Your task to perform on an android device: When is my next meeting? Image 0: 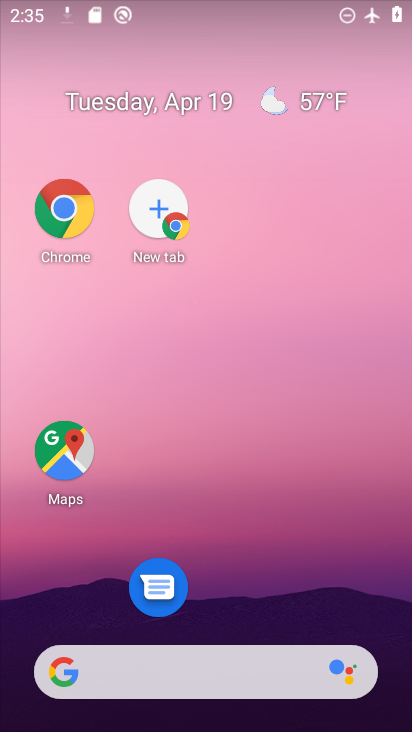
Step 0: click (199, 372)
Your task to perform on an android device: When is my next meeting? Image 1: 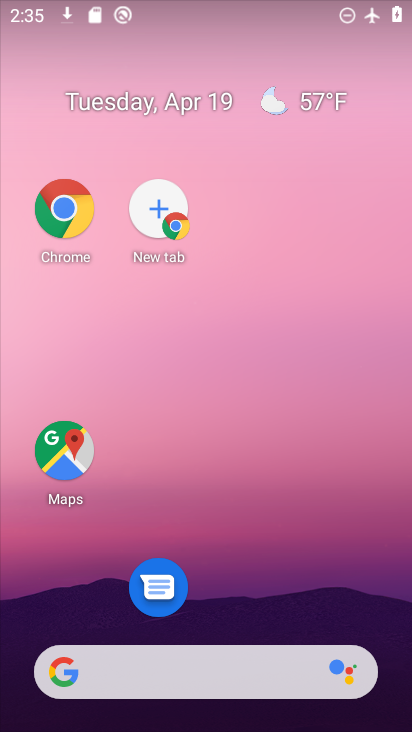
Step 1: drag from (294, 588) to (274, 303)
Your task to perform on an android device: When is my next meeting? Image 2: 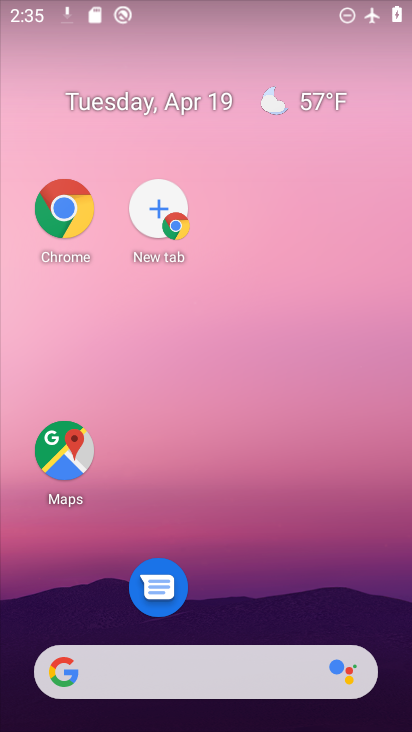
Step 2: drag from (275, 619) to (205, 342)
Your task to perform on an android device: When is my next meeting? Image 3: 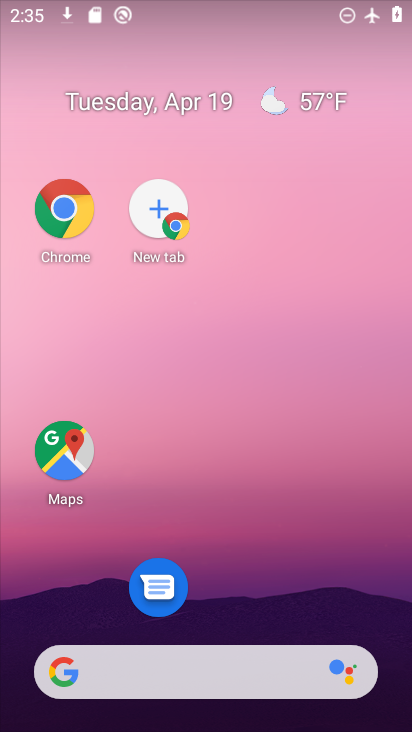
Step 3: drag from (281, 630) to (189, 353)
Your task to perform on an android device: When is my next meeting? Image 4: 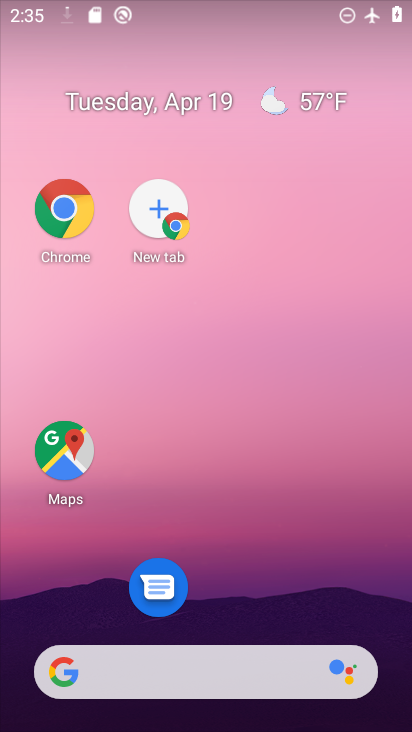
Step 4: drag from (268, 544) to (221, 325)
Your task to perform on an android device: When is my next meeting? Image 5: 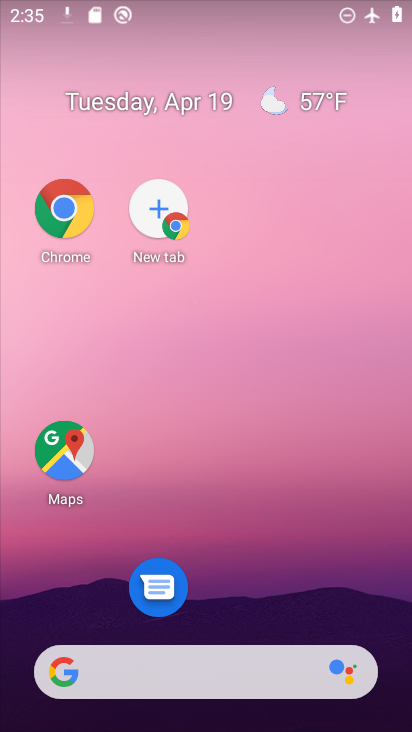
Step 5: drag from (305, 578) to (235, 213)
Your task to perform on an android device: When is my next meeting? Image 6: 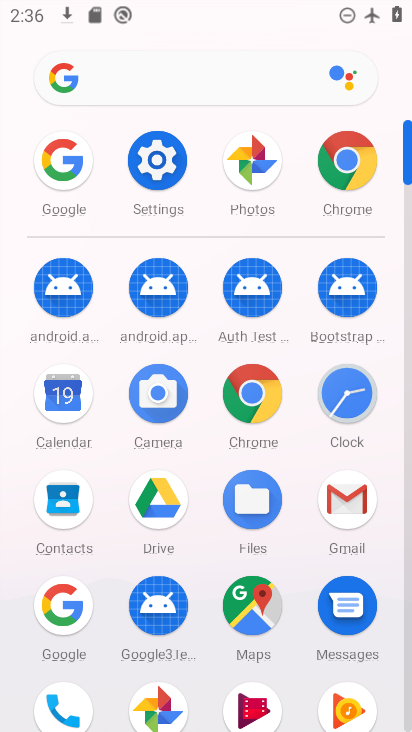
Step 6: click (57, 401)
Your task to perform on an android device: When is my next meeting? Image 7: 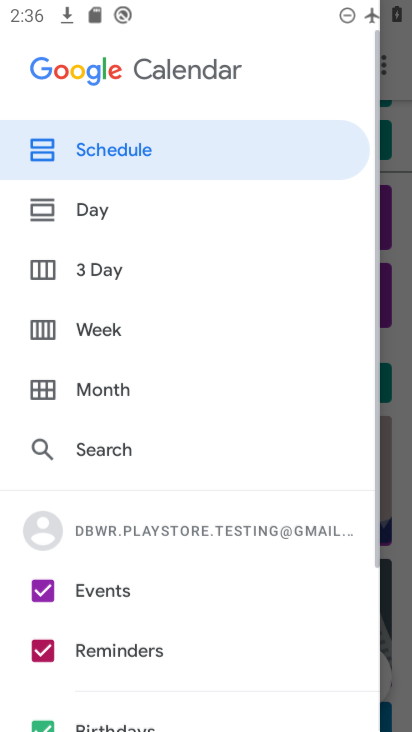
Step 7: click (57, 401)
Your task to perform on an android device: When is my next meeting? Image 8: 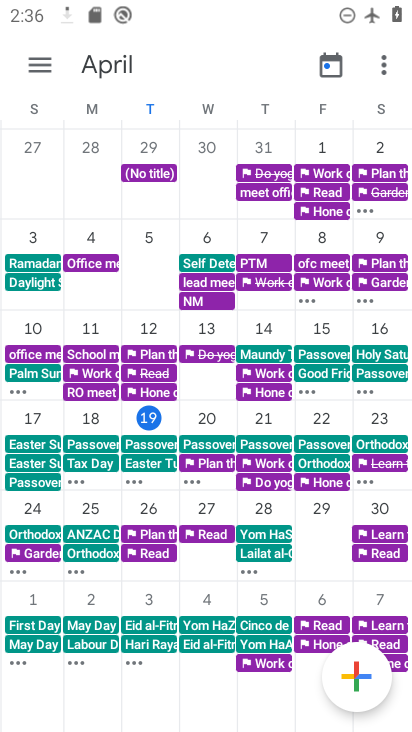
Step 8: click (151, 218)
Your task to perform on an android device: When is my next meeting? Image 9: 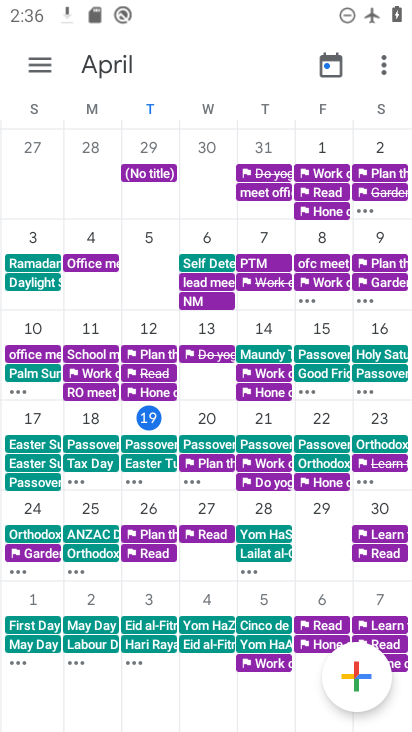
Step 9: drag from (207, 518) to (184, 225)
Your task to perform on an android device: When is my next meeting? Image 10: 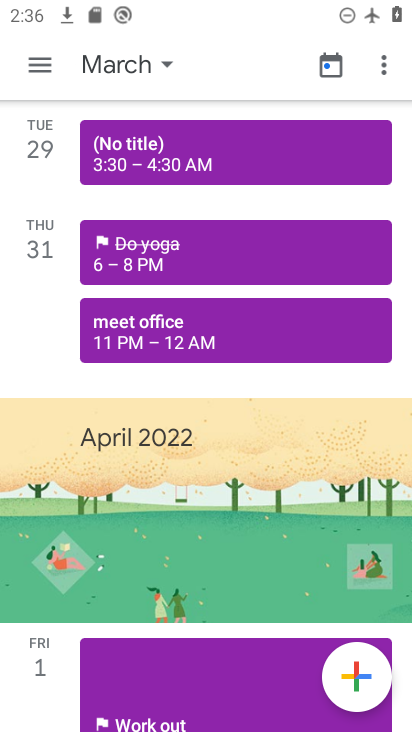
Step 10: drag from (250, 489) to (258, 229)
Your task to perform on an android device: When is my next meeting? Image 11: 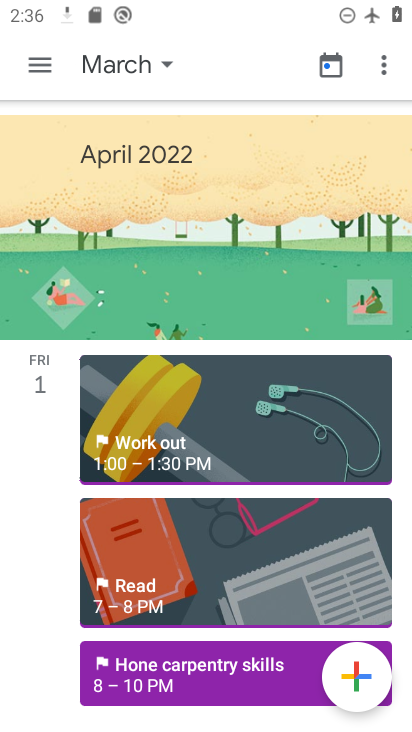
Step 11: drag from (305, 571) to (280, 283)
Your task to perform on an android device: When is my next meeting? Image 12: 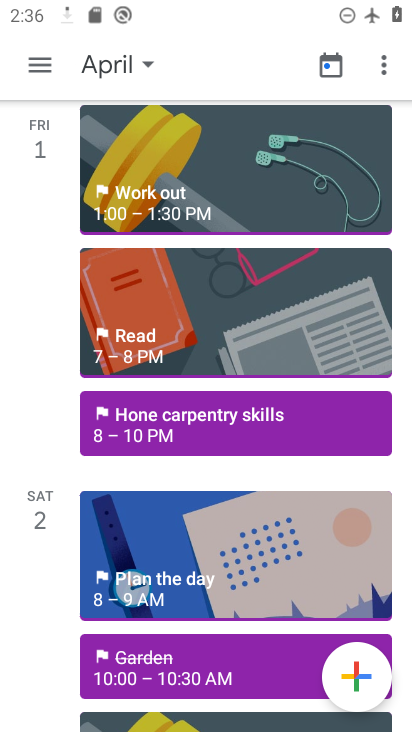
Step 12: drag from (240, 529) to (229, 221)
Your task to perform on an android device: When is my next meeting? Image 13: 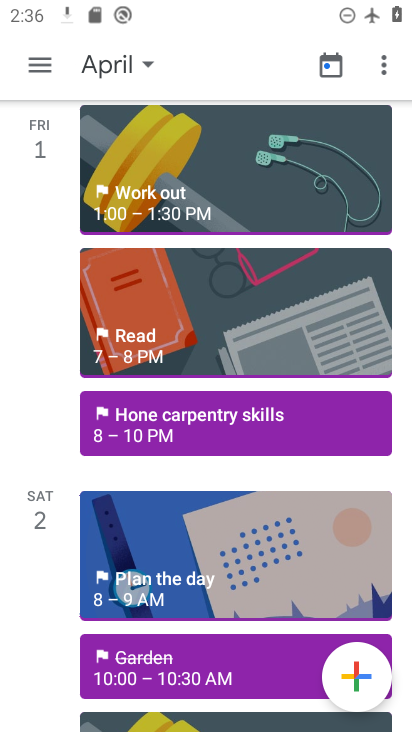
Step 13: drag from (179, 548) to (159, 242)
Your task to perform on an android device: When is my next meeting? Image 14: 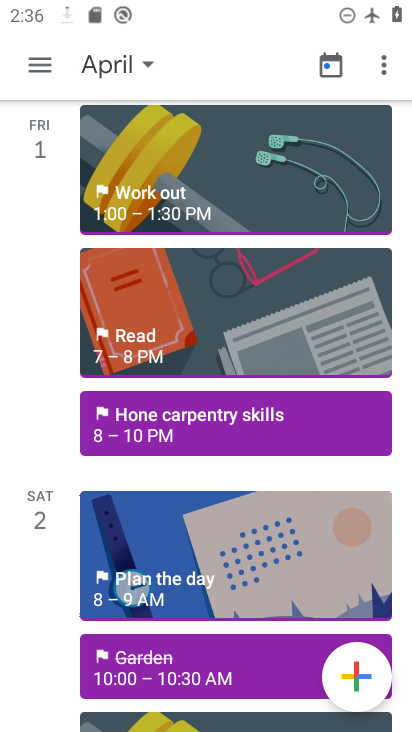
Step 14: drag from (181, 541) to (132, 263)
Your task to perform on an android device: When is my next meeting? Image 15: 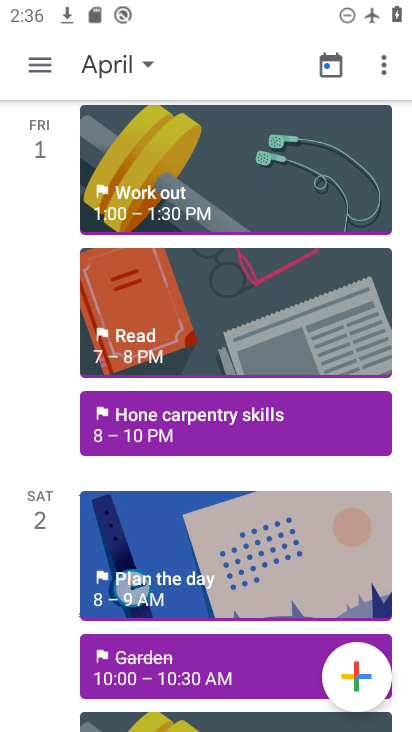
Step 15: drag from (150, 592) to (144, 228)
Your task to perform on an android device: When is my next meeting? Image 16: 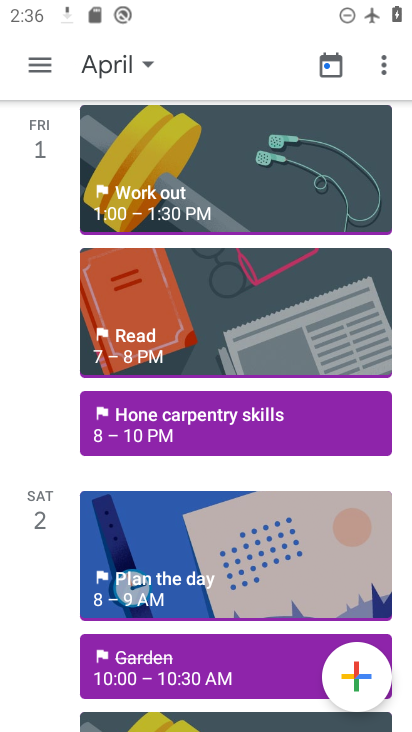
Step 16: drag from (230, 598) to (277, 264)
Your task to perform on an android device: When is my next meeting? Image 17: 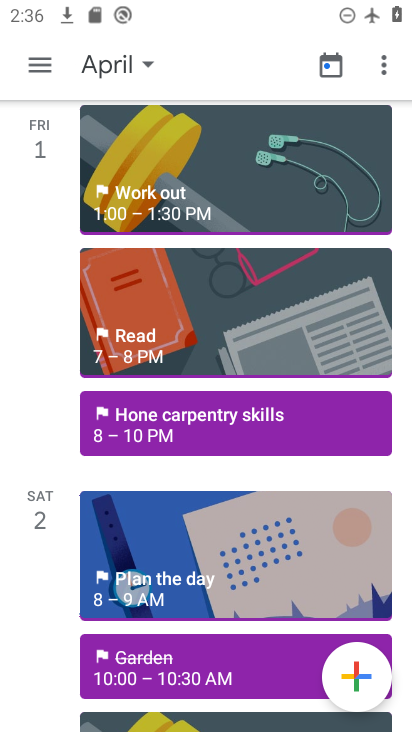
Step 17: drag from (276, 646) to (227, 182)
Your task to perform on an android device: When is my next meeting? Image 18: 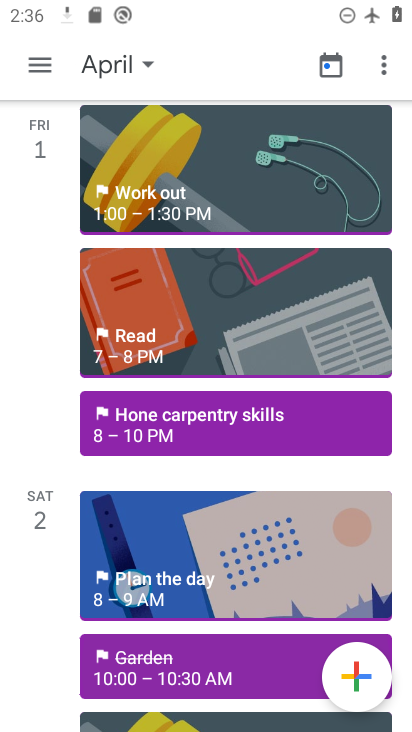
Step 18: click (199, 271)
Your task to perform on an android device: When is my next meeting? Image 19: 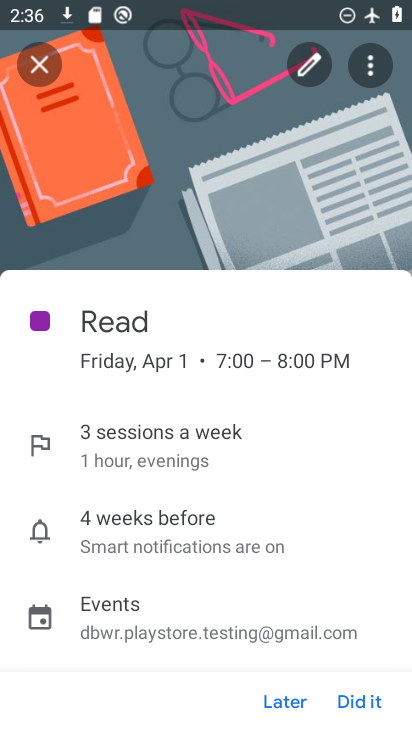
Step 19: drag from (151, 459) to (128, 197)
Your task to perform on an android device: When is my next meeting? Image 20: 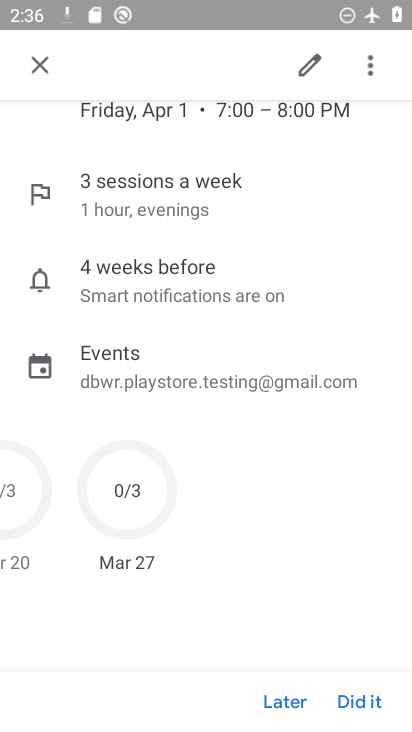
Step 20: click (41, 61)
Your task to perform on an android device: When is my next meeting? Image 21: 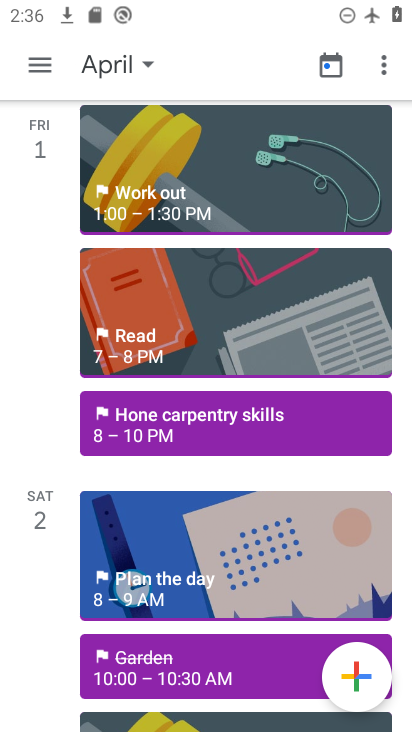
Step 21: click (40, 70)
Your task to perform on an android device: When is my next meeting? Image 22: 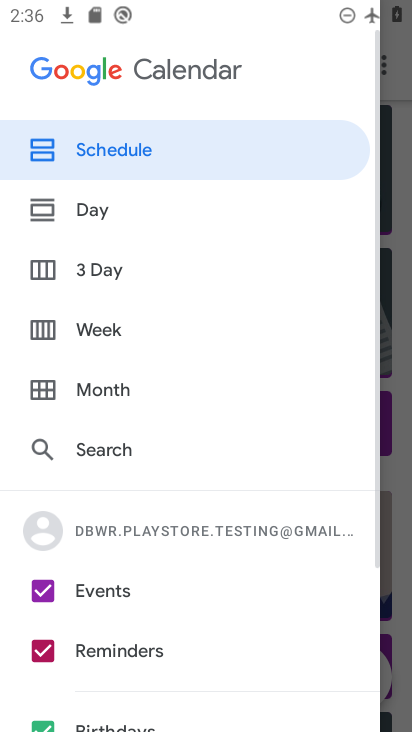
Step 22: drag from (194, 592) to (180, 245)
Your task to perform on an android device: When is my next meeting? Image 23: 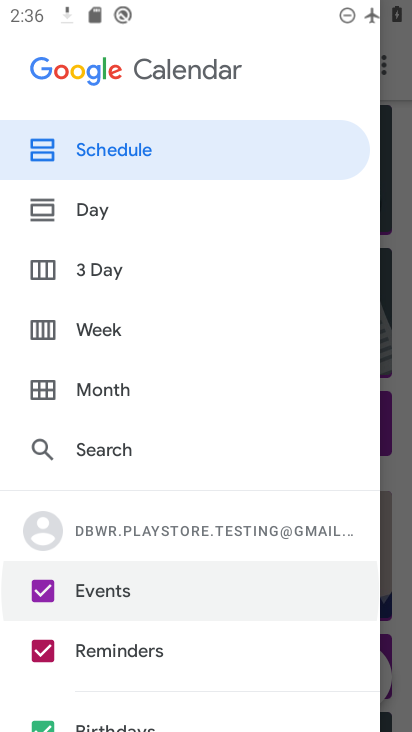
Step 23: drag from (225, 494) to (250, 237)
Your task to perform on an android device: When is my next meeting? Image 24: 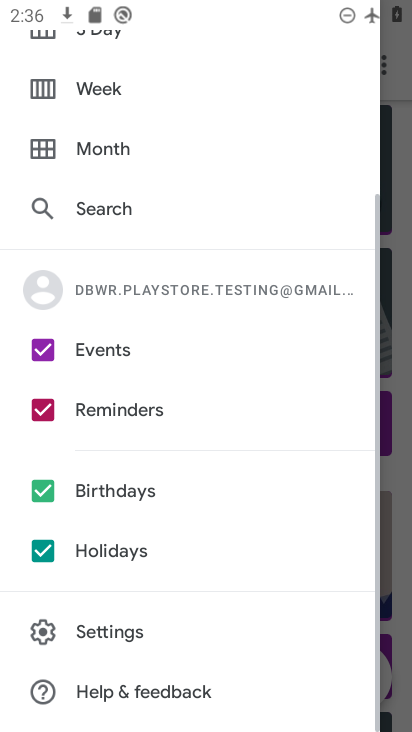
Step 24: press back button
Your task to perform on an android device: When is my next meeting? Image 25: 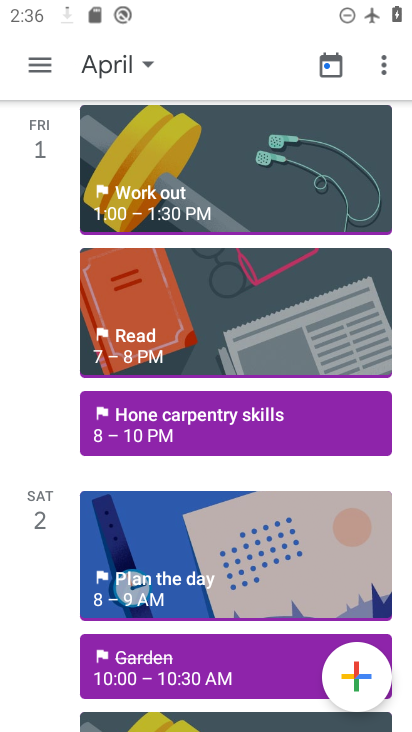
Step 25: drag from (232, 592) to (210, 434)
Your task to perform on an android device: When is my next meeting? Image 26: 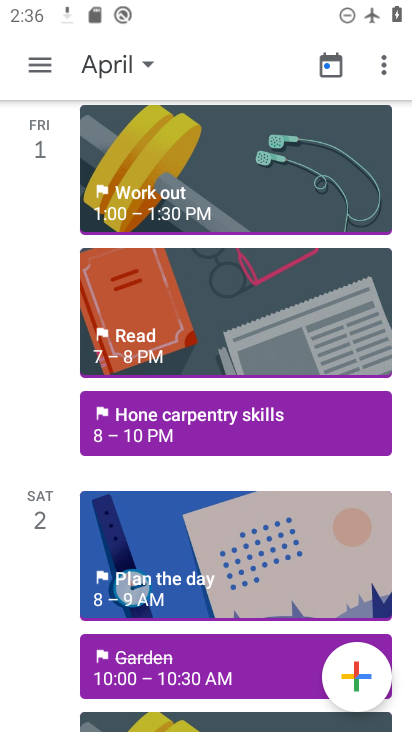
Step 26: drag from (198, 195) to (198, 508)
Your task to perform on an android device: When is my next meeting? Image 27: 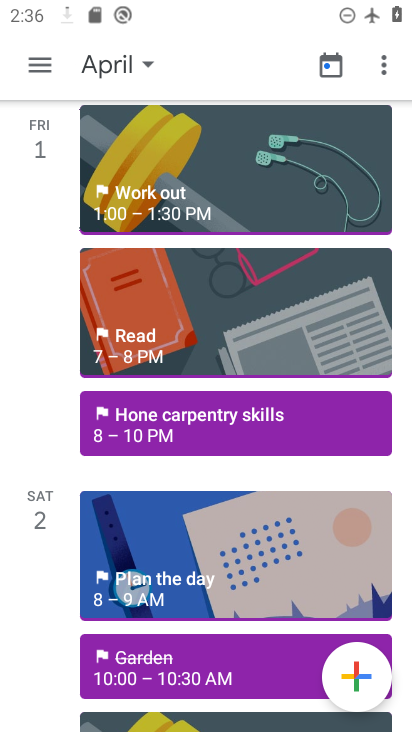
Step 27: drag from (161, 264) to (160, 491)
Your task to perform on an android device: When is my next meeting? Image 28: 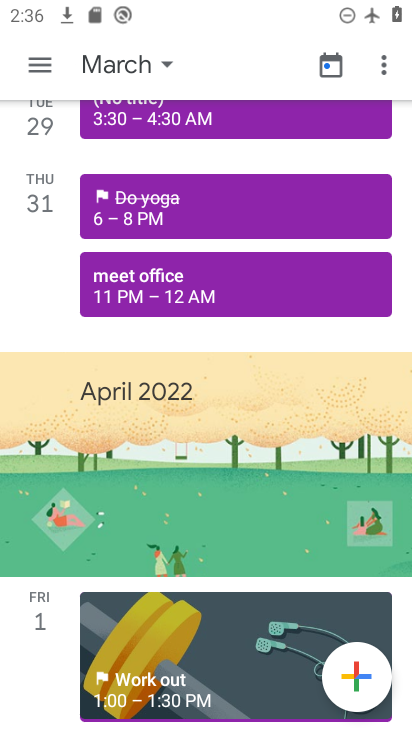
Step 28: click (171, 287)
Your task to perform on an android device: When is my next meeting? Image 29: 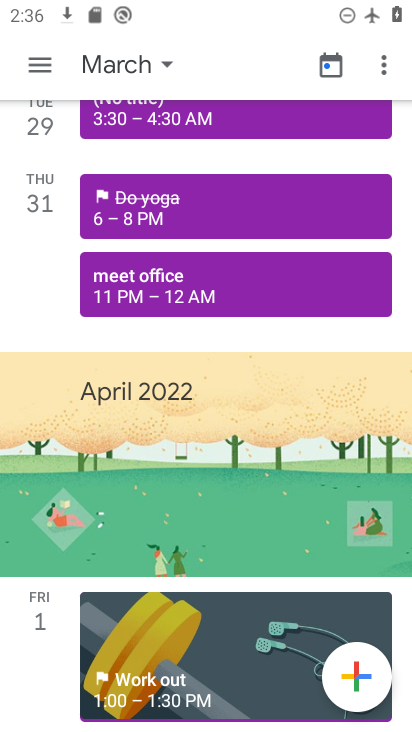
Step 29: click (187, 296)
Your task to perform on an android device: When is my next meeting? Image 30: 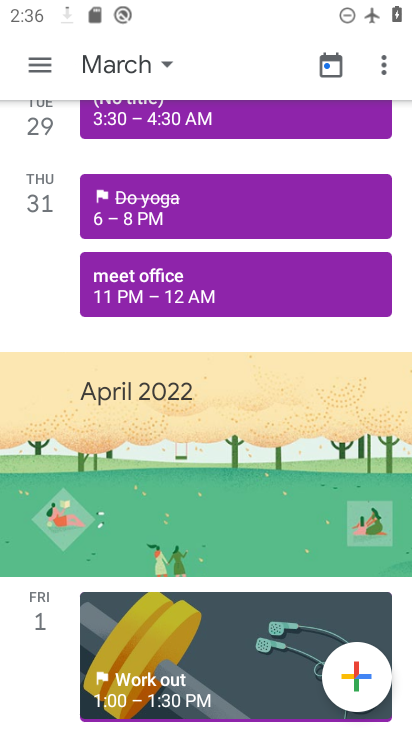
Step 30: click (187, 296)
Your task to perform on an android device: When is my next meeting? Image 31: 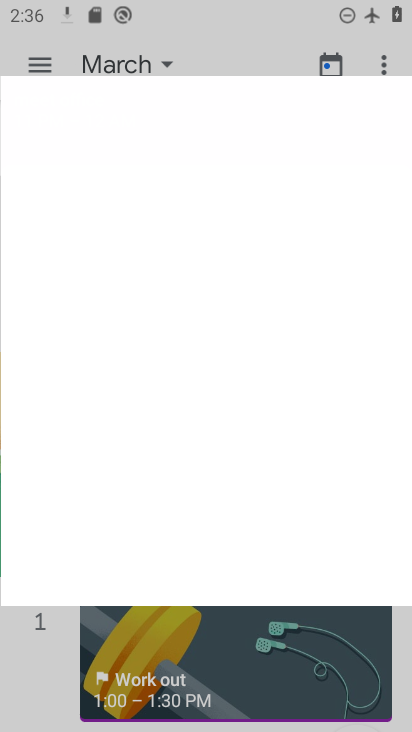
Step 31: click (187, 296)
Your task to perform on an android device: When is my next meeting? Image 32: 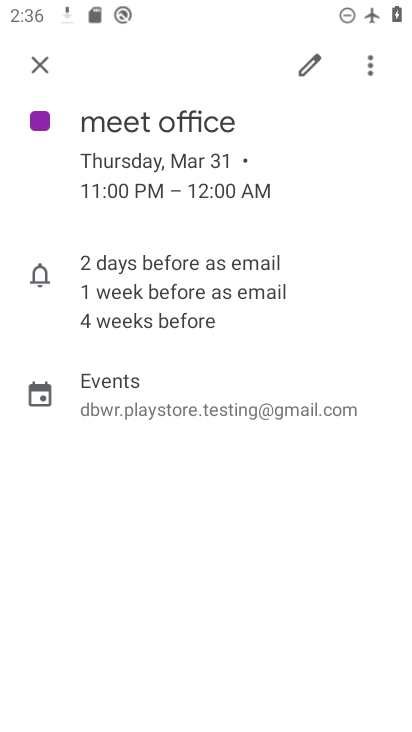
Step 32: click (38, 66)
Your task to perform on an android device: When is my next meeting? Image 33: 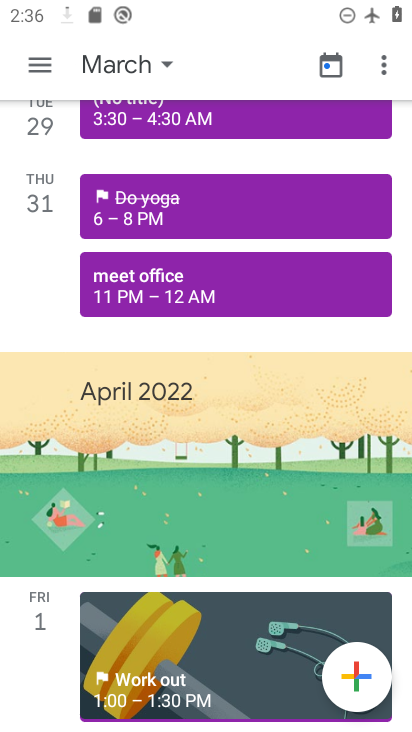
Step 33: drag from (190, 555) to (204, 60)
Your task to perform on an android device: When is my next meeting? Image 34: 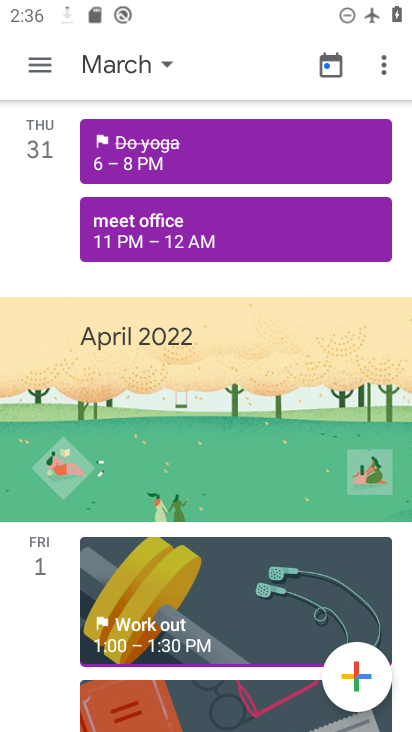
Step 34: drag from (186, 501) to (162, 127)
Your task to perform on an android device: When is my next meeting? Image 35: 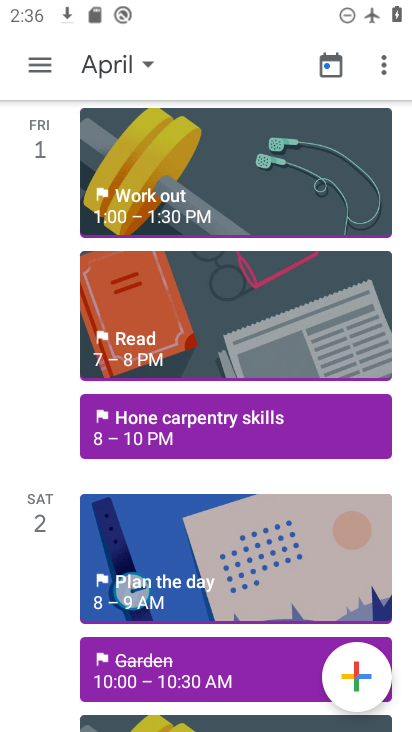
Step 35: drag from (193, 484) to (177, 96)
Your task to perform on an android device: When is my next meeting? Image 36: 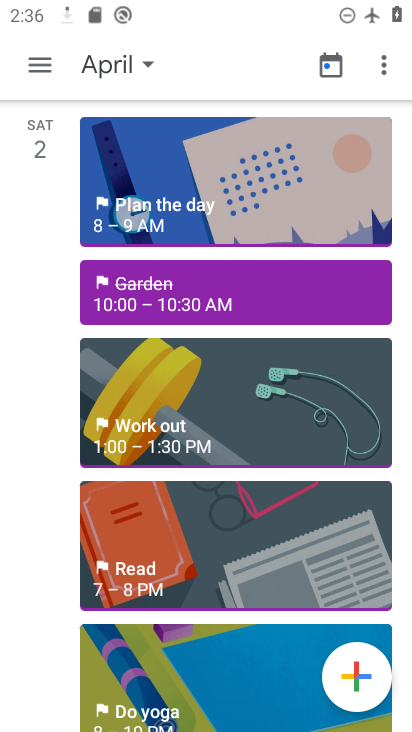
Step 36: drag from (216, 528) to (200, 137)
Your task to perform on an android device: When is my next meeting? Image 37: 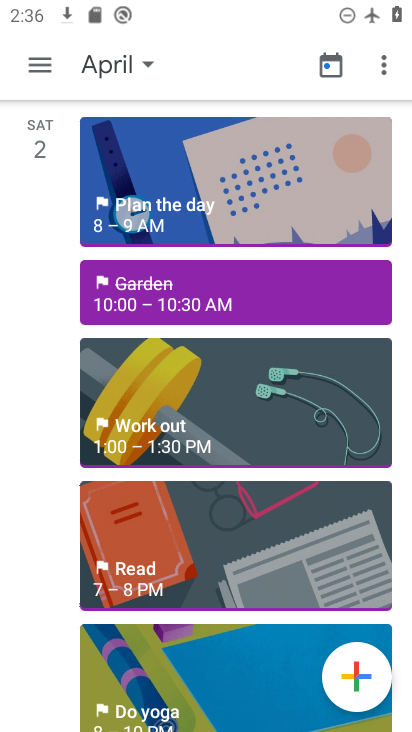
Step 37: click (201, 99)
Your task to perform on an android device: When is my next meeting? Image 38: 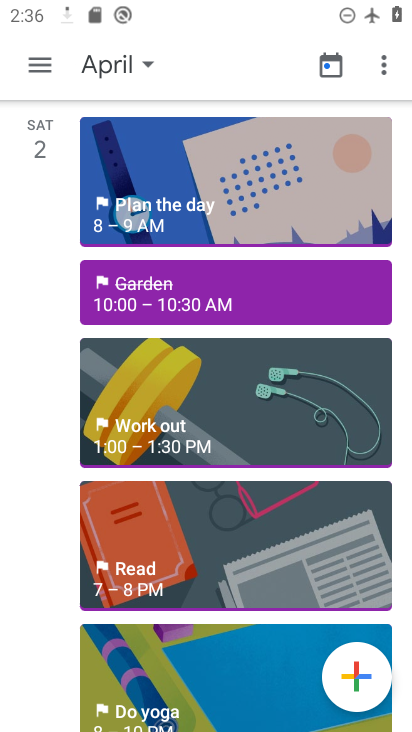
Step 38: drag from (185, 542) to (119, 72)
Your task to perform on an android device: When is my next meeting? Image 39: 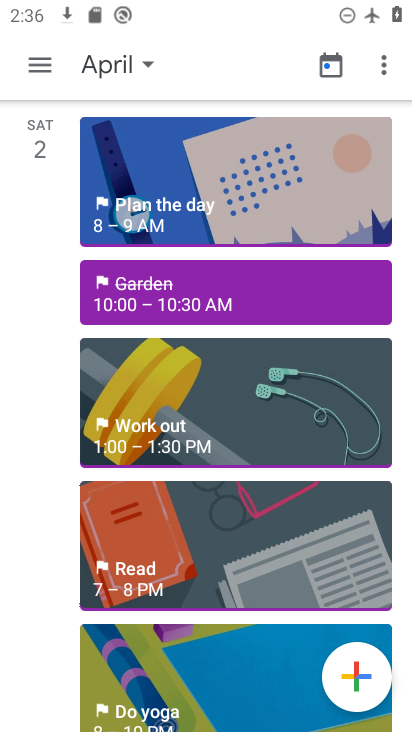
Step 39: drag from (181, 556) to (169, 305)
Your task to perform on an android device: When is my next meeting? Image 40: 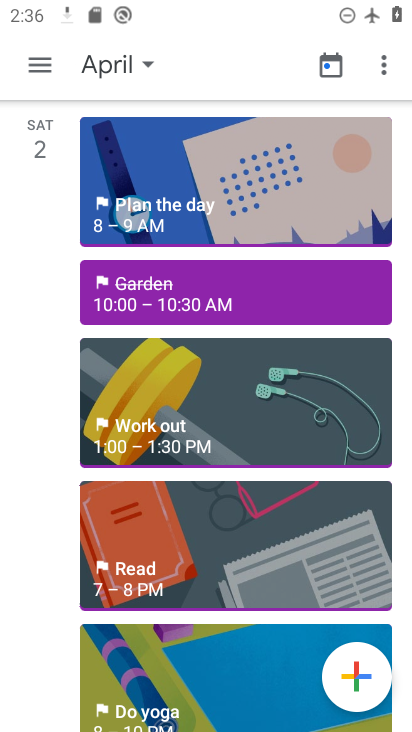
Step 40: drag from (163, 635) to (176, 316)
Your task to perform on an android device: When is my next meeting? Image 41: 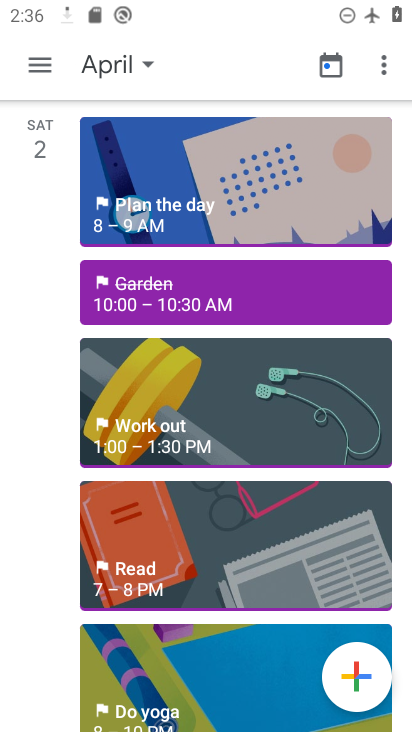
Step 41: drag from (248, 657) to (212, 155)
Your task to perform on an android device: When is my next meeting? Image 42: 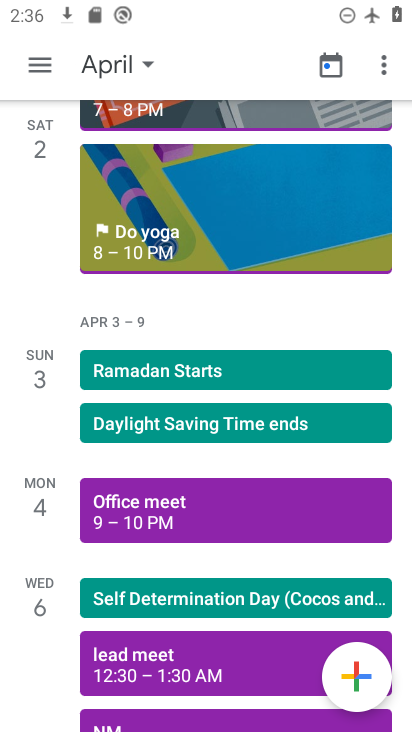
Step 42: drag from (178, 605) to (138, 224)
Your task to perform on an android device: When is my next meeting? Image 43: 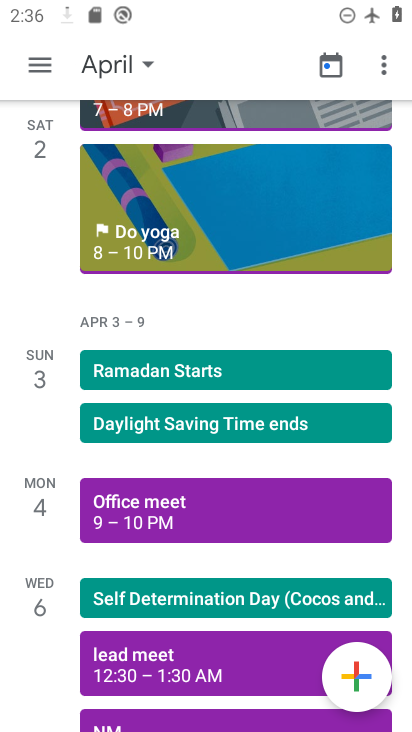
Step 43: drag from (196, 620) to (126, 178)
Your task to perform on an android device: When is my next meeting? Image 44: 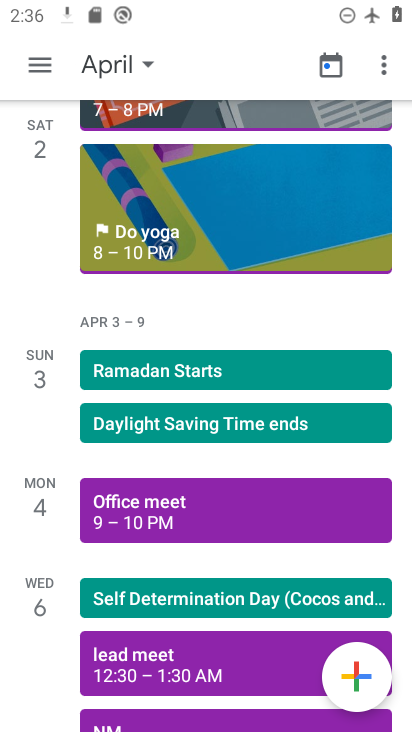
Step 44: drag from (145, 554) to (96, 214)
Your task to perform on an android device: When is my next meeting? Image 45: 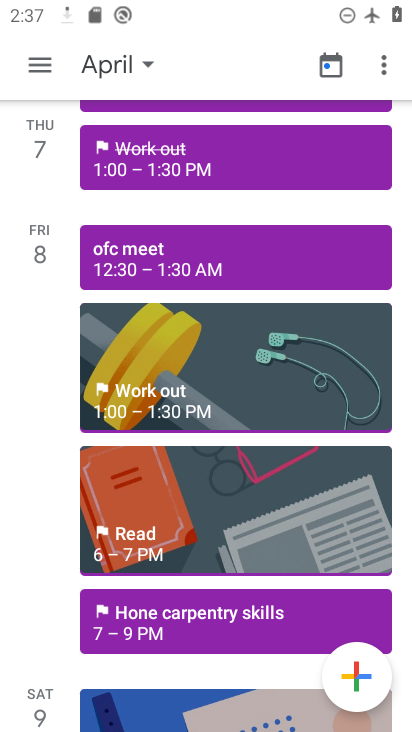
Step 45: drag from (186, 556) to (151, 259)
Your task to perform on an android device: When is my next meeting? Image 46: 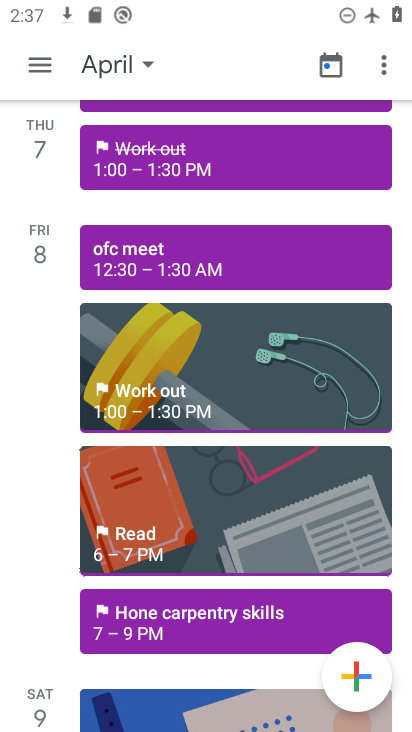
Step 46: drag from (213, 572) to (195, 143)
Your task to perform on an android device: When is my next meeting? Image 47: 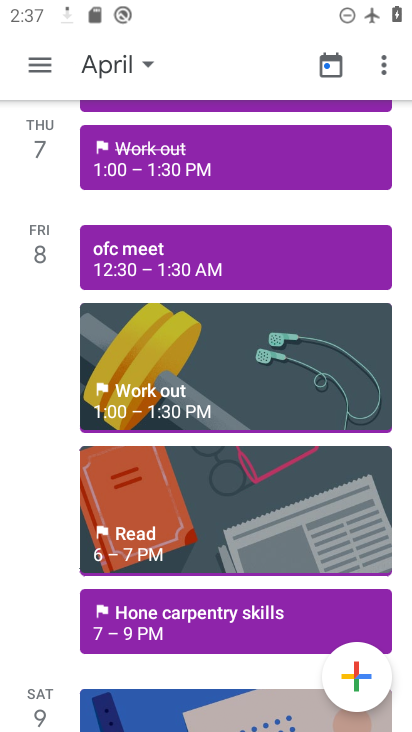
Step 47: drag from (211, 559) to (185, 205)
Your task to perform on an android device: When is my next meeting? Image 48: 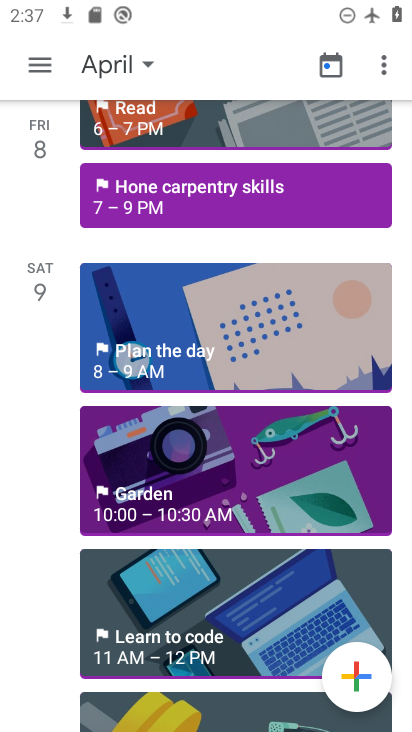
Step 48: drag from (250, 605) to (179, 135)
Your task to perform on an android device: When is my next meeting? Image 49: 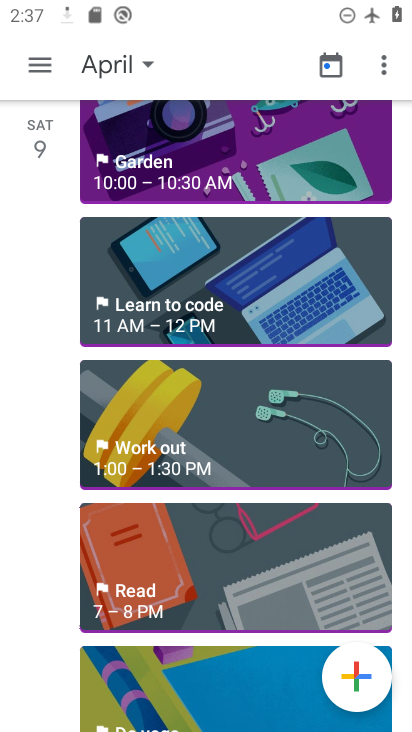
Step 49: drag from (140, 517) to (102, 182)
Your task to perform on an android device: When is my next meeting? Image 50: 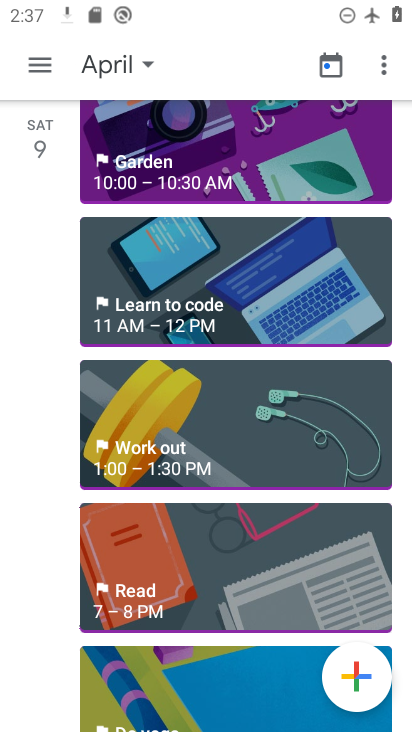
Step 50: drag from (163, 613) to (144, 161)
Your task to perform on an android device: When is my next meeting? Image 51: 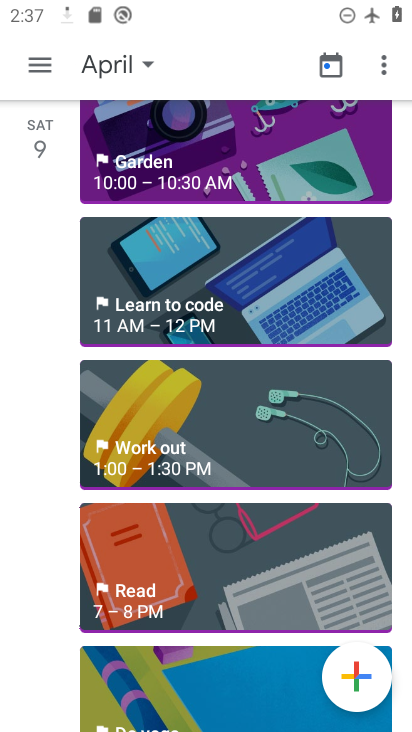
Step 51: drag from (236, 488) to (186, 0)
Your task to perform on an android device: When is my next meeting? Image 52: 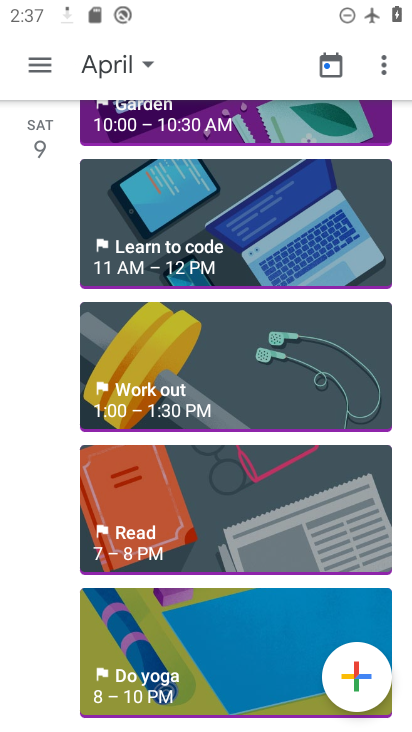
Step 52: drag from (222, 538) to (167, 260)
Your task to perform on an android device: When is my next meeting? Image 53: 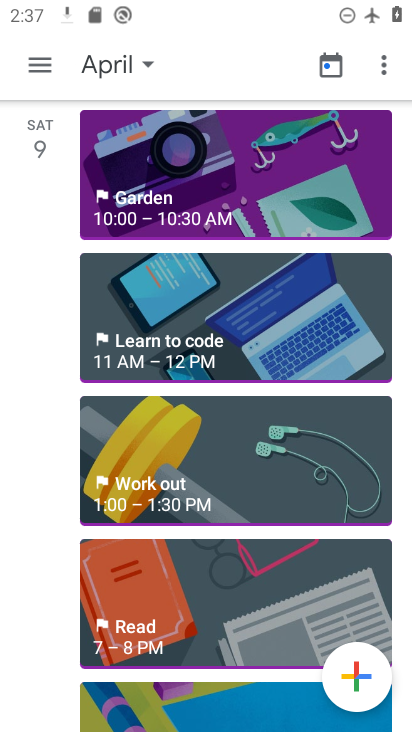
Step 53: drag from (287, 619) to (244, 216)
Your task to perform on an android device: When is my next meeting? Image 54: 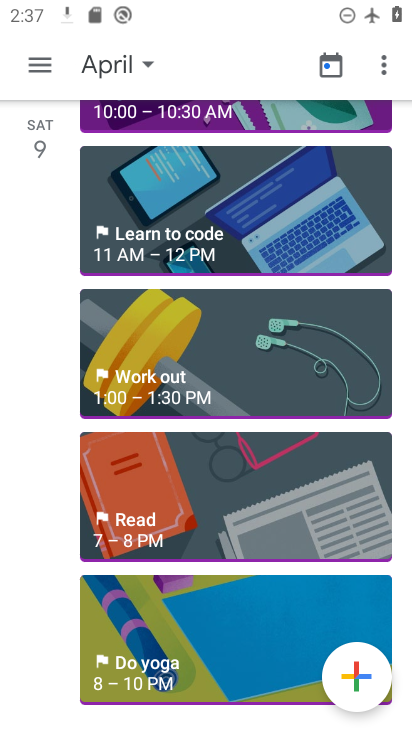
Step 54: drag from (252, 635) to (170, 239)
Your task to perform on an android device: When is my next meeting? Image 55: 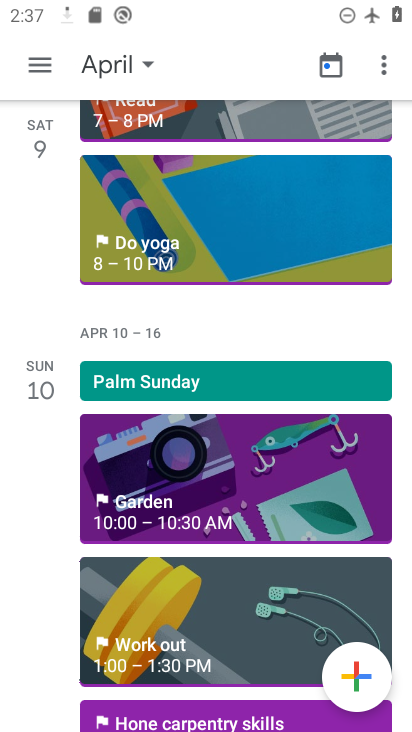
Step 55: drag from (255, 596) to (198, 9)
Your task to perform on an android device: When is my next meeting? Image 56: 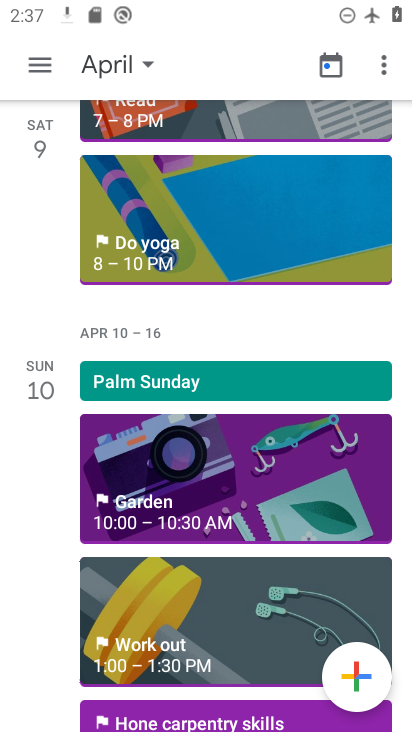
Step 56: drag from (150, 552) to (163, 308)
Your task to perform on an android device: When is my next meeting? Image 57: 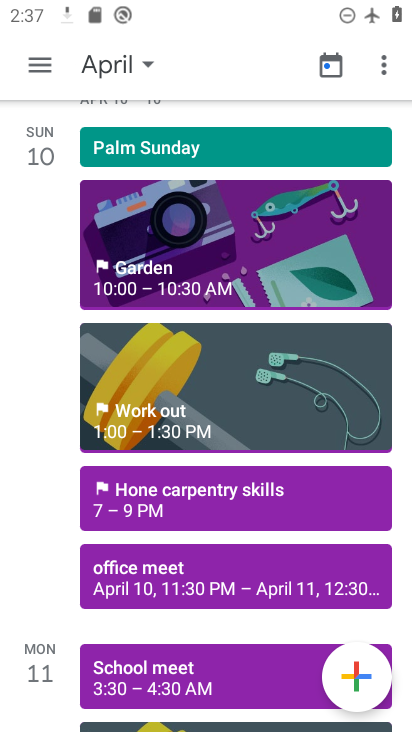
Step 57: click (154, 588)
Your task to perform on an android device: When is my next meeting? Image 58: 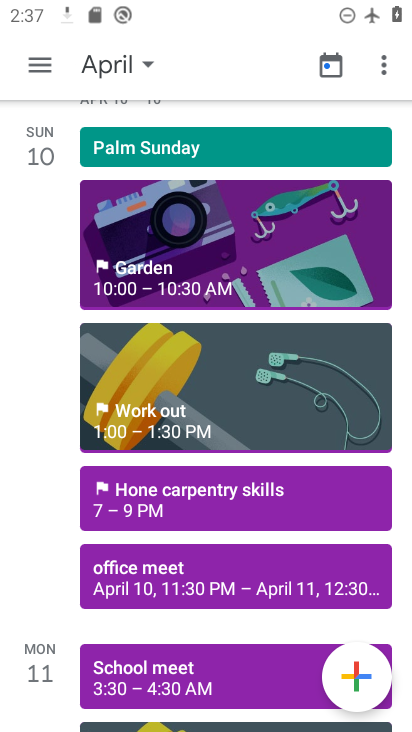
Step 58: task complete